Your task to perform on an android device: Open Maps and search for coffee Image 0: 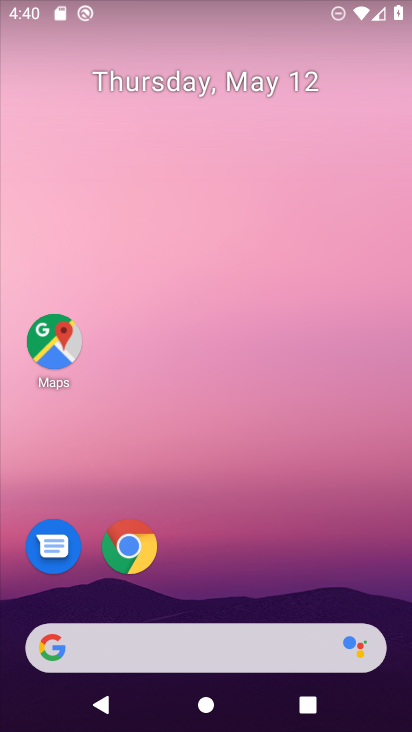
Step 0: drag from (267, 359) to (271, 197)
Your task to perform on an android device: Open Maps and search for coffee Image 1: 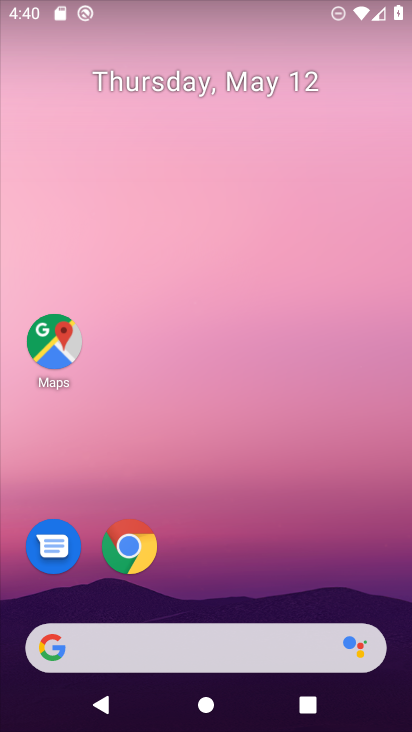
Step 1: click (57, 343)
Your task to perform on an android device: Open Maps and search for coffee Image 2: 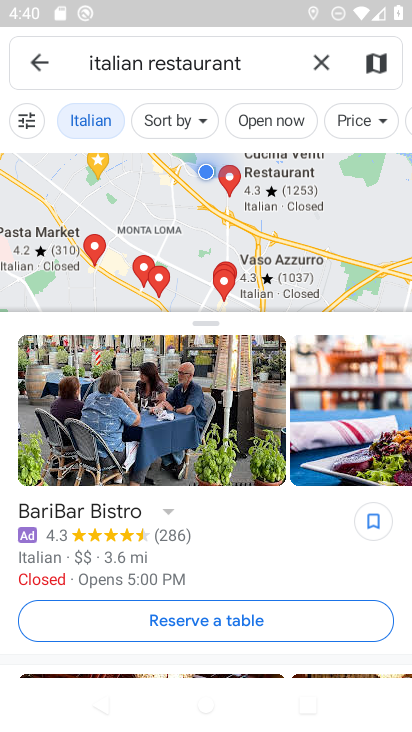
Step 2: click (314, 61)
Your task to perform on an android device: Open Maps and search for coffee Image 3: 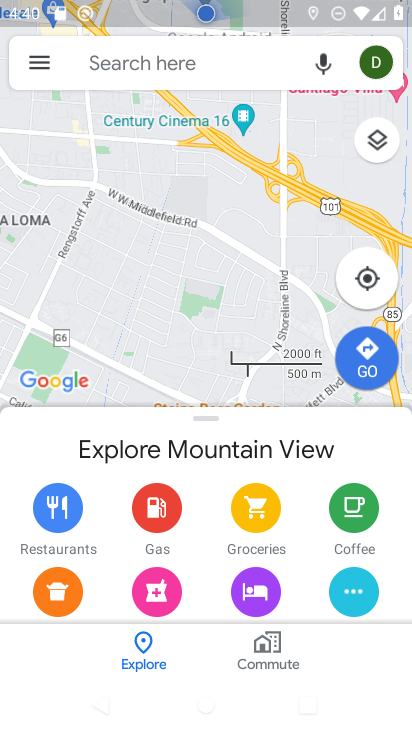
Step 3: click (239, 56)
Your task to perform on an android device: Open Maps and search for coffee Image 4: 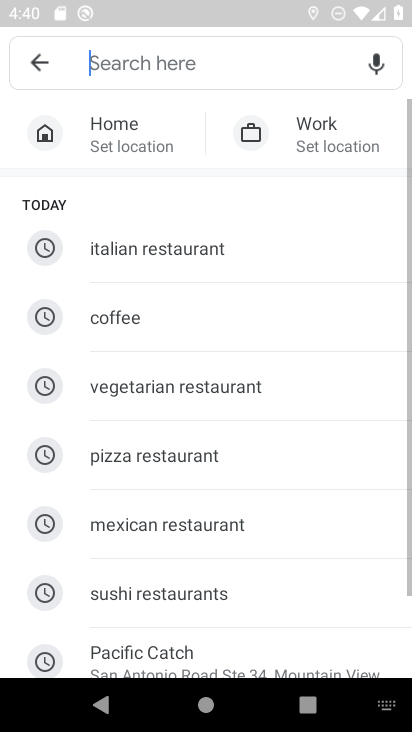
Step 4: click (115, 313)
Your task to perform on an android device: Open Maps and search for coffee Image 5: 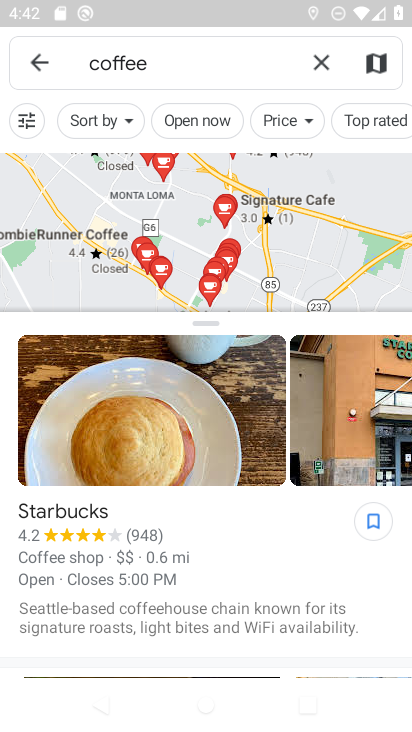
Step 5: task complete